Your task to perform on an android device: add a label to a message in the gmail app Image 0: 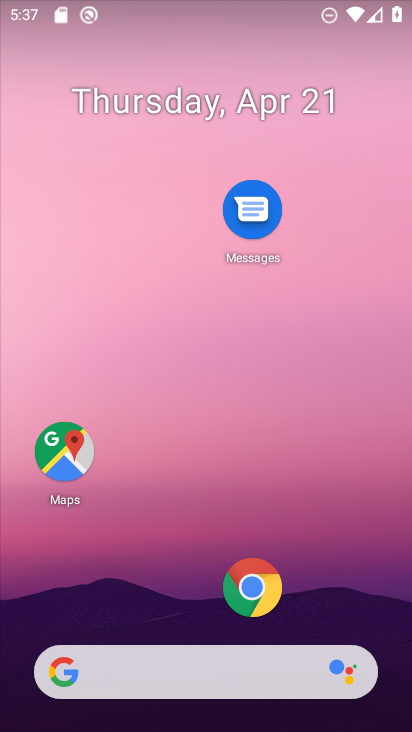
Step 0: drag from (203, 613) to (235, 120)
Your task to perform on an android device: add a label to a message in the gmail app Image 1: 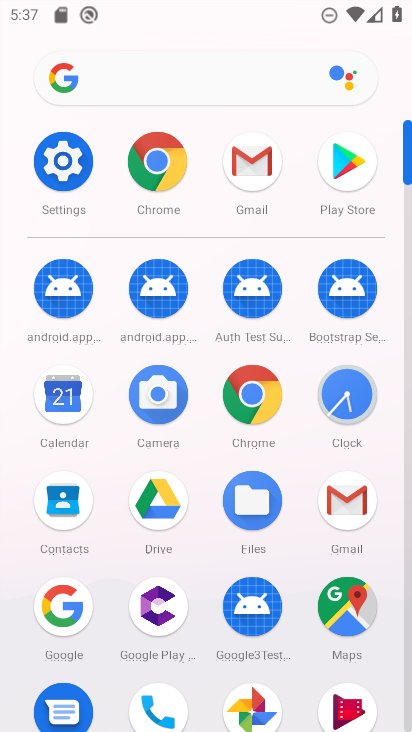
Step 1: click (349, 499)
Your task to perform on an android device: add a label to a message in the gmail app Image 2: 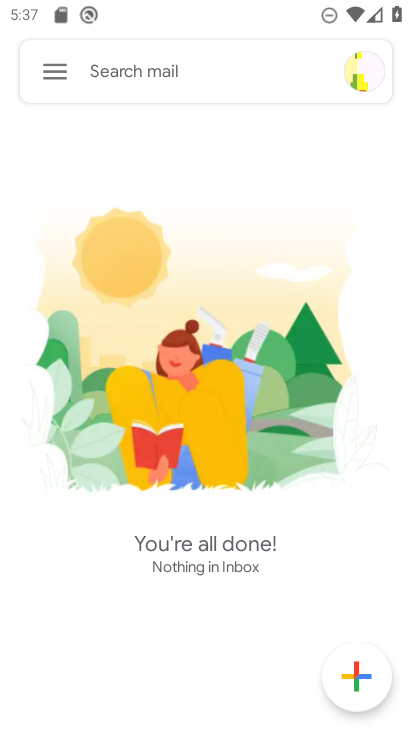
Step 2: click (47, 73)
Your task to perform on an android device: add a label to a message in the gmail app Image 3: 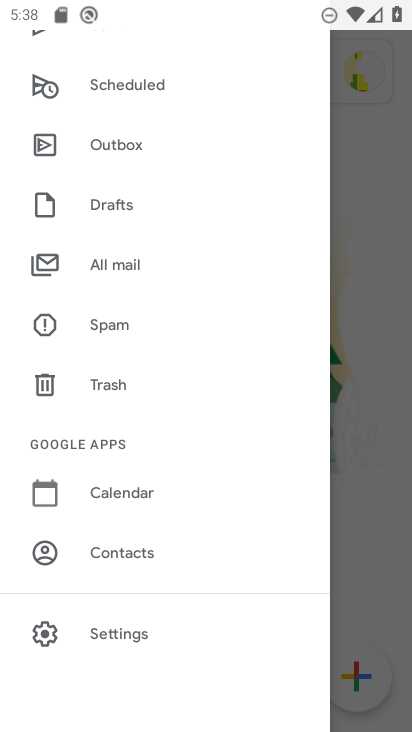
Step 3: click (120, 265)
Your task to perform on an android device: add a label to a message in the gmail app Image 4: 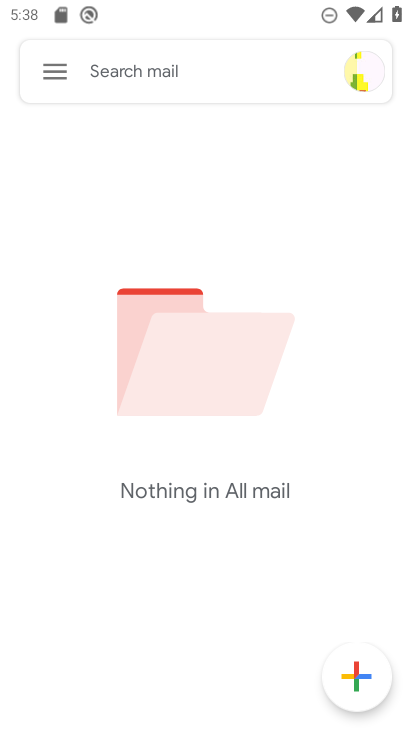
Step 4: task complete